Your task to perform on an android device: Go to sound settings Image 0: 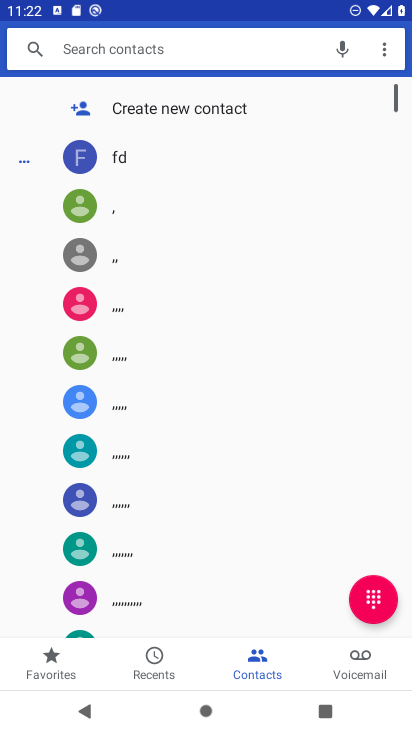
Step 0: press home button
Your task to perform on an android device: Go to sound settings Image 1: 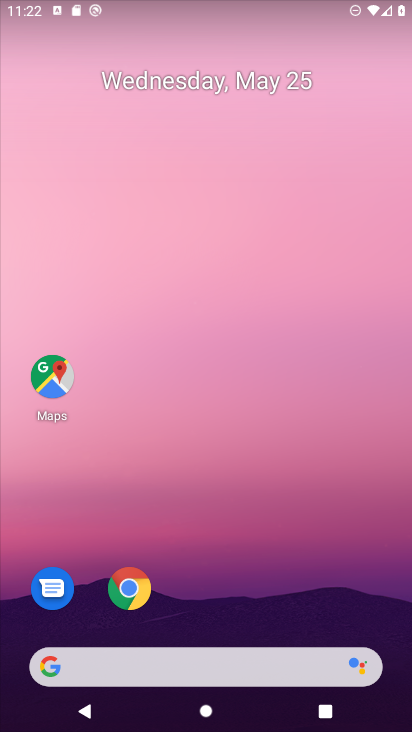
Step 1: drag from (30, 583) to (222, 170)
Your task to perform on an android device: Go to sound settings Image 2: 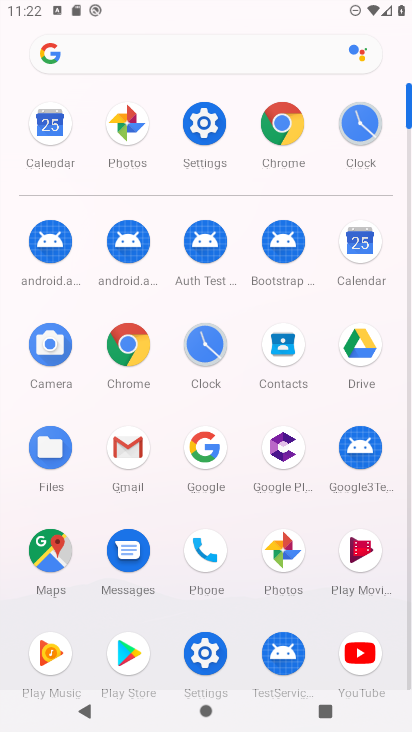
Step 2: click (197, 118)
Your task to perform on an android device: Go to sound settings Image 3: 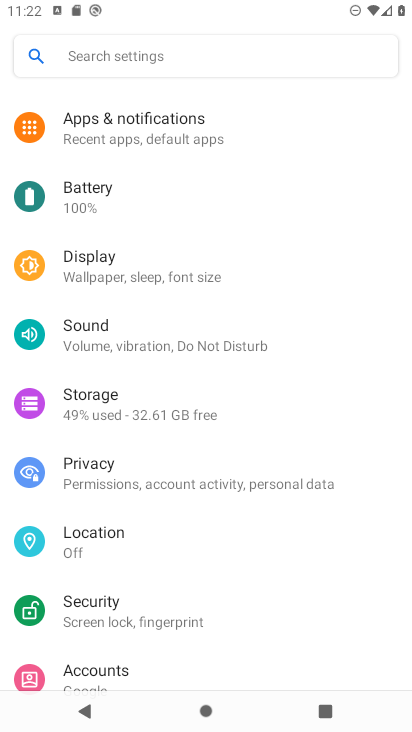
Step 3: click (115, 331)
Your task to perform on an android device: Go to sound settings Image 4: 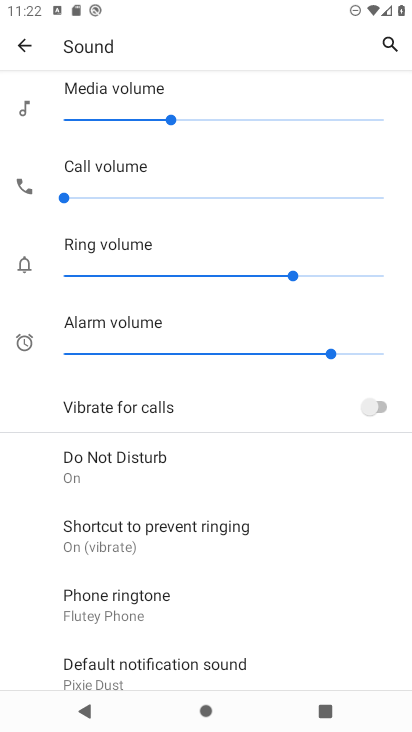
Step 4: task complete